Your task to perform on an android device: turn off notifications settings in the gmail app Image 0: 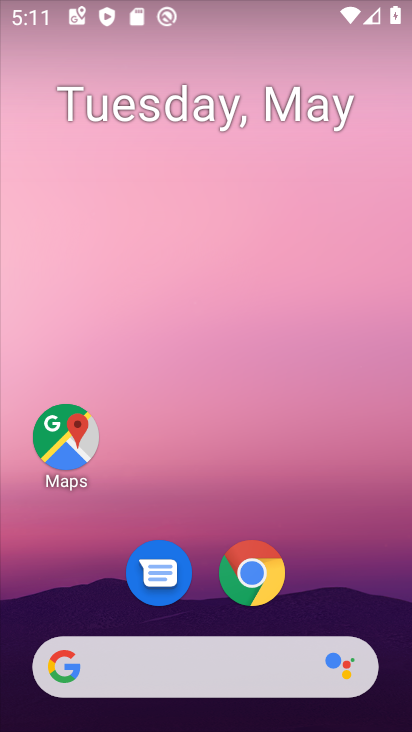
Step 0: drag from (203, 487) to (260, 14)
Your task to perform on an android device: turn off notifications settings in the gmail app Image 1: 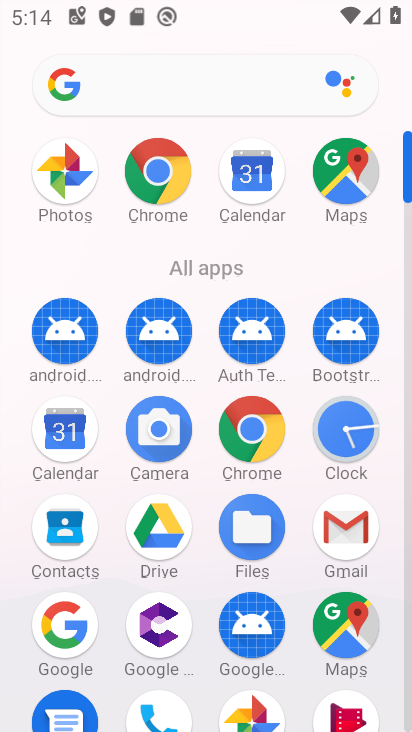
Step 1: click (347, 526)
Your task to perform on an android device: turn off notifications settings in the gmail app Image 2: 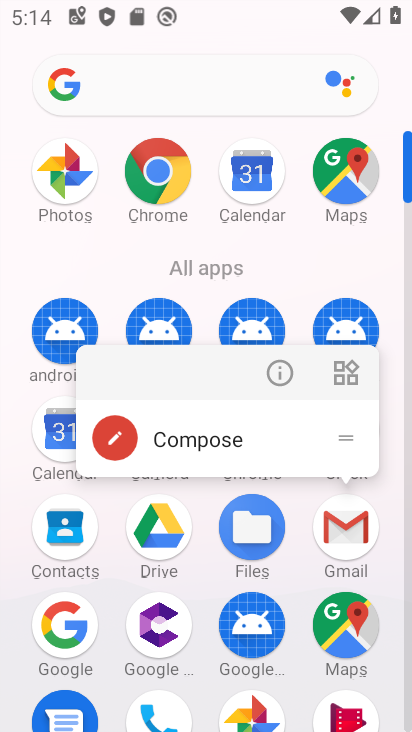
Step 2: click (280, 369)
Your task to perform on an android device: turn off notifications settings in the gmail app Image 3: 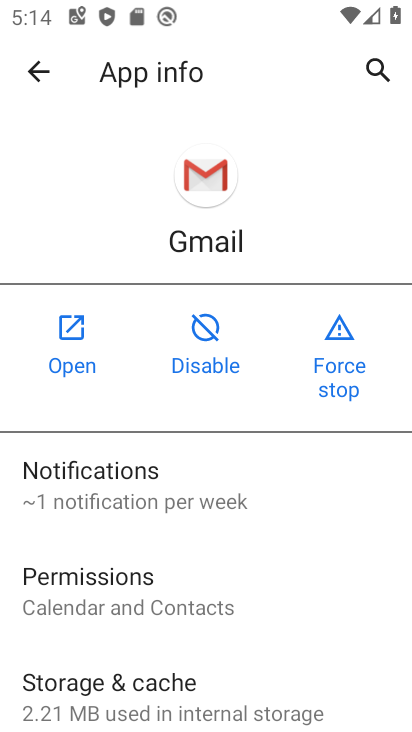
Step 3: click (232, 496)
Your task to perform on an android device: turn off notifications settings in the gmail app Image 4: 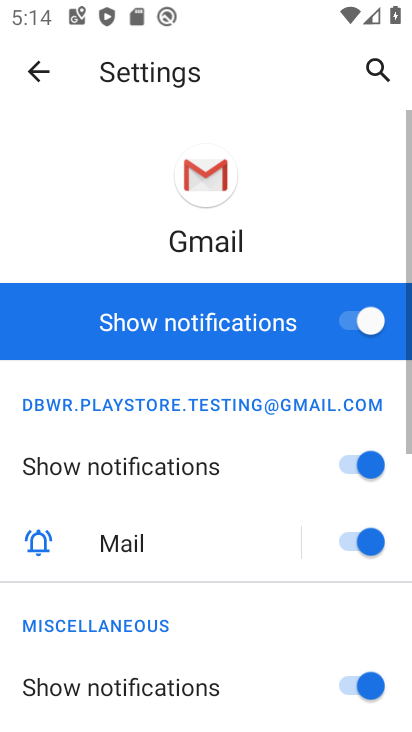
Step 4: click (361, 320)
Your task to perform on an android device: turn off notifications settings in the gmail app Image 5: 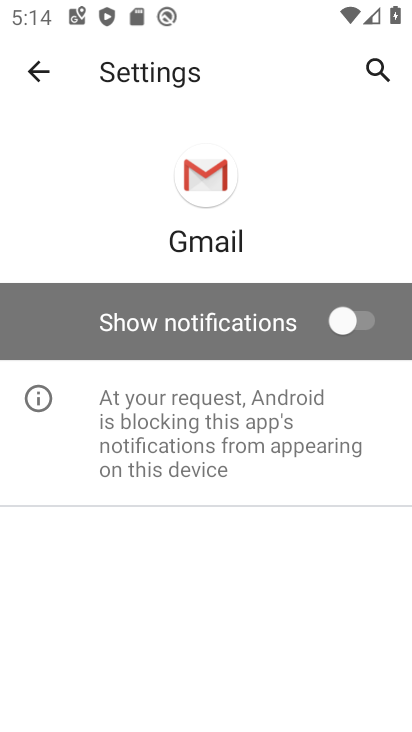
Step 5: task complete